Your task to perform on an android device: Go to Yahoo.com Image 0: 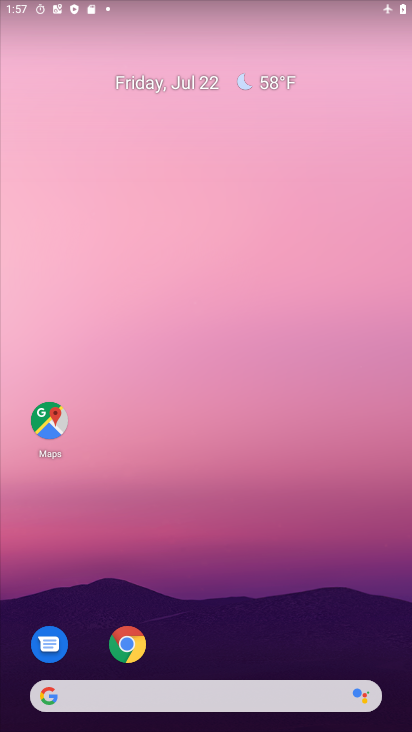
Step 0: drag from (193, 612) to (190, 230)
Your task to perform on an android device: Go to Yahoo.com Image 1: 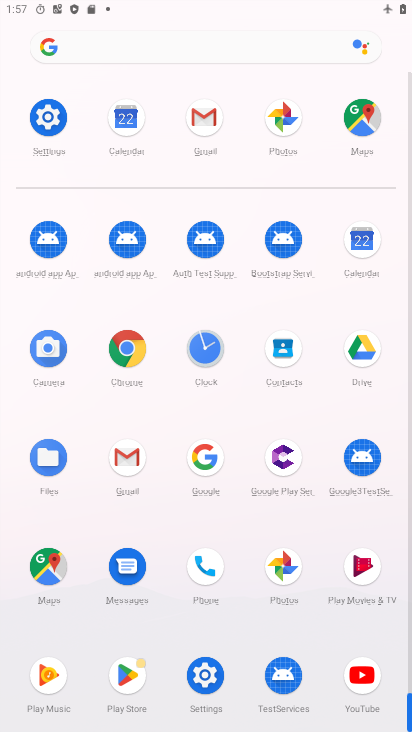
Step 1: click (145, 45)
Your task to perform on an android device: Go to Yahoo.com Image 2: 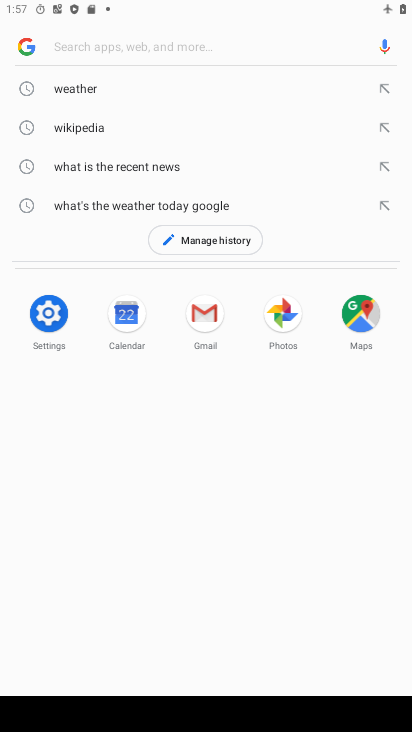
Step 2: type "yahoo.com"
Your task to perform on an android device: Go to Yahoo.com Image 3: 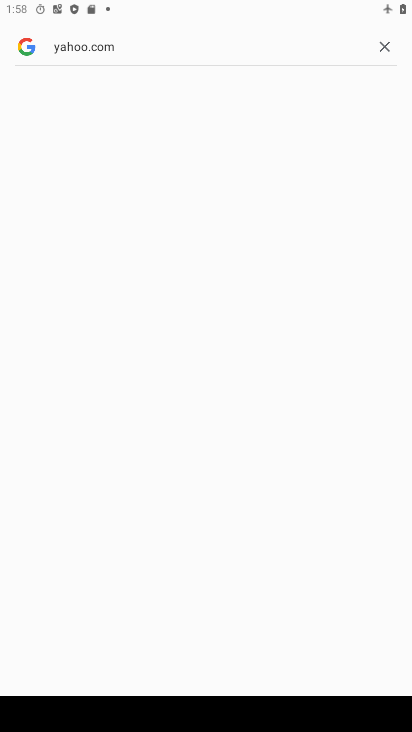
Step 3: drag from (242, 331) to (264, 207)
Your task to perform on an android device: Go to Yahoo.com Image 4: 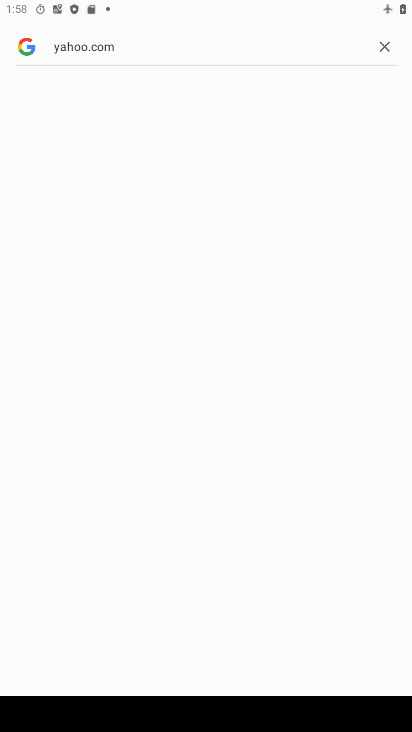
Step 4: drag from (148, 349) to (158, 298)
Your task to perform on an android device: Go to Yahoo.com Image 5: 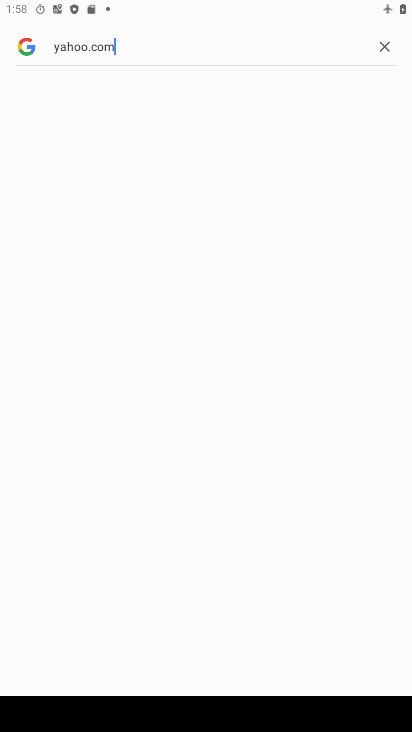
Step 5: click (159, 192)
Your task to perform on an android device: Go to Yahoo.com Image 6: 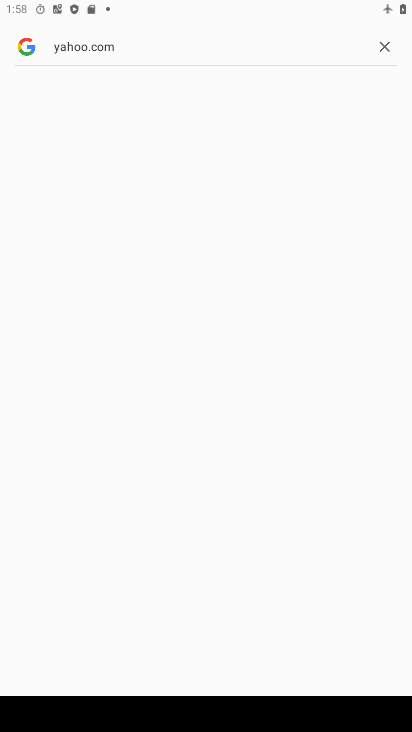
Step 6: click (166, 118)
Your task to perform on an android device: Go to Yahoo.com Image 7: 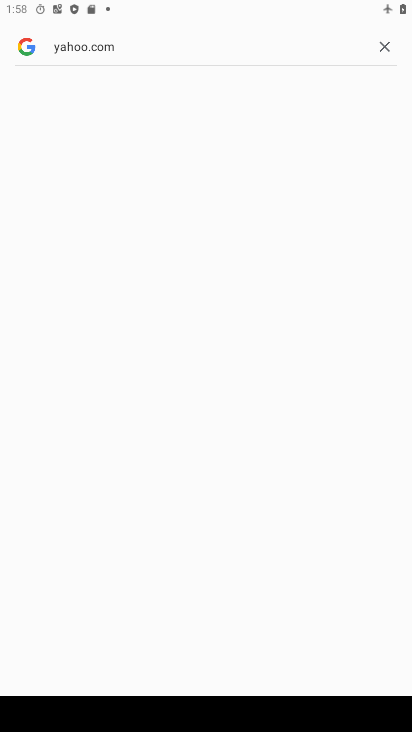
Step 7: click (384, 50)
Your task to perform on an android device: Go to Yahoo.com Image 8: 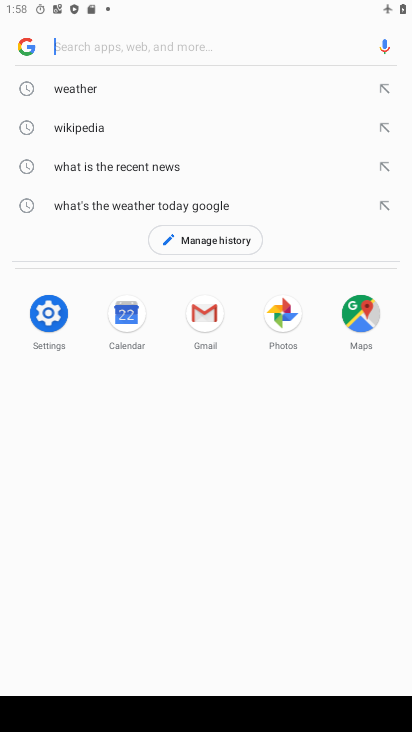
Step 8: task complete